Your task to perform on an android device: Clear the cart on newegg. Image 0: 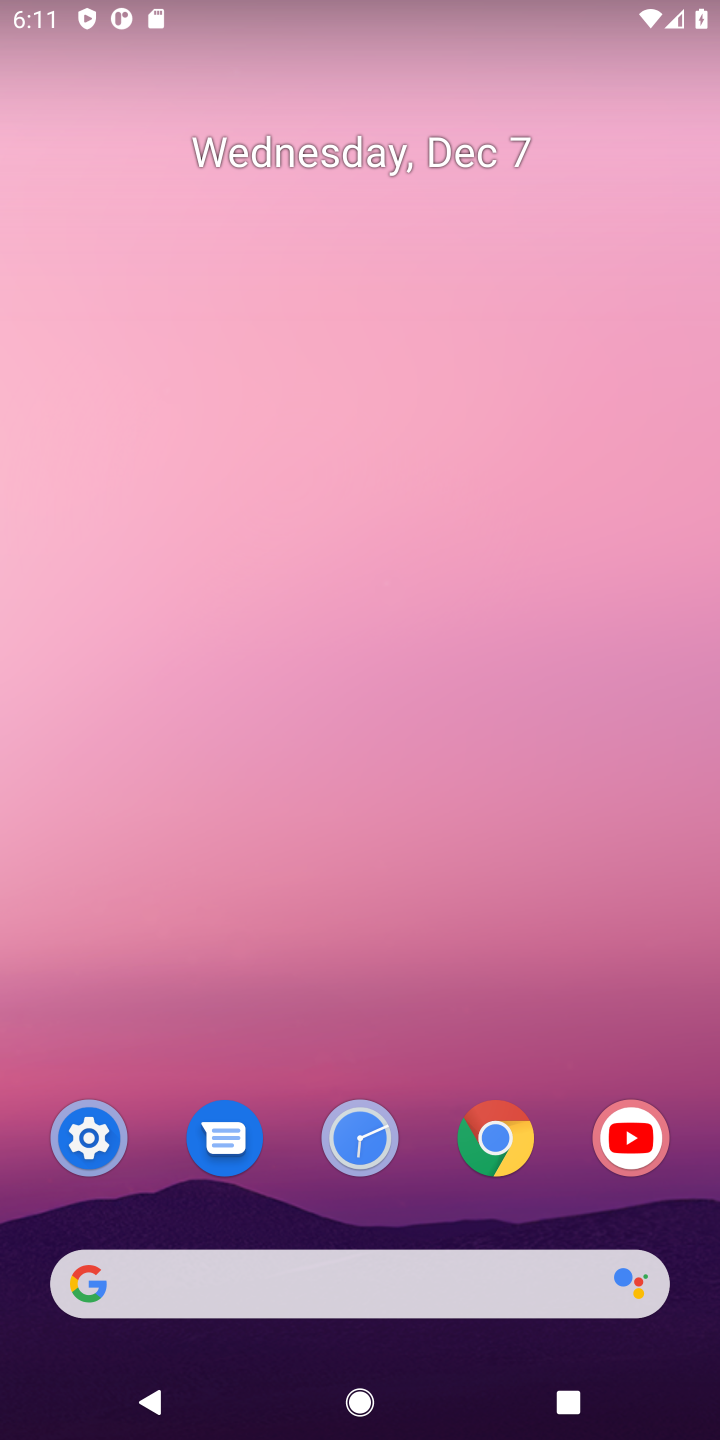
Step 0: press home button
Your task to perform on an android device: Clear the cart on newegg. Image 1: 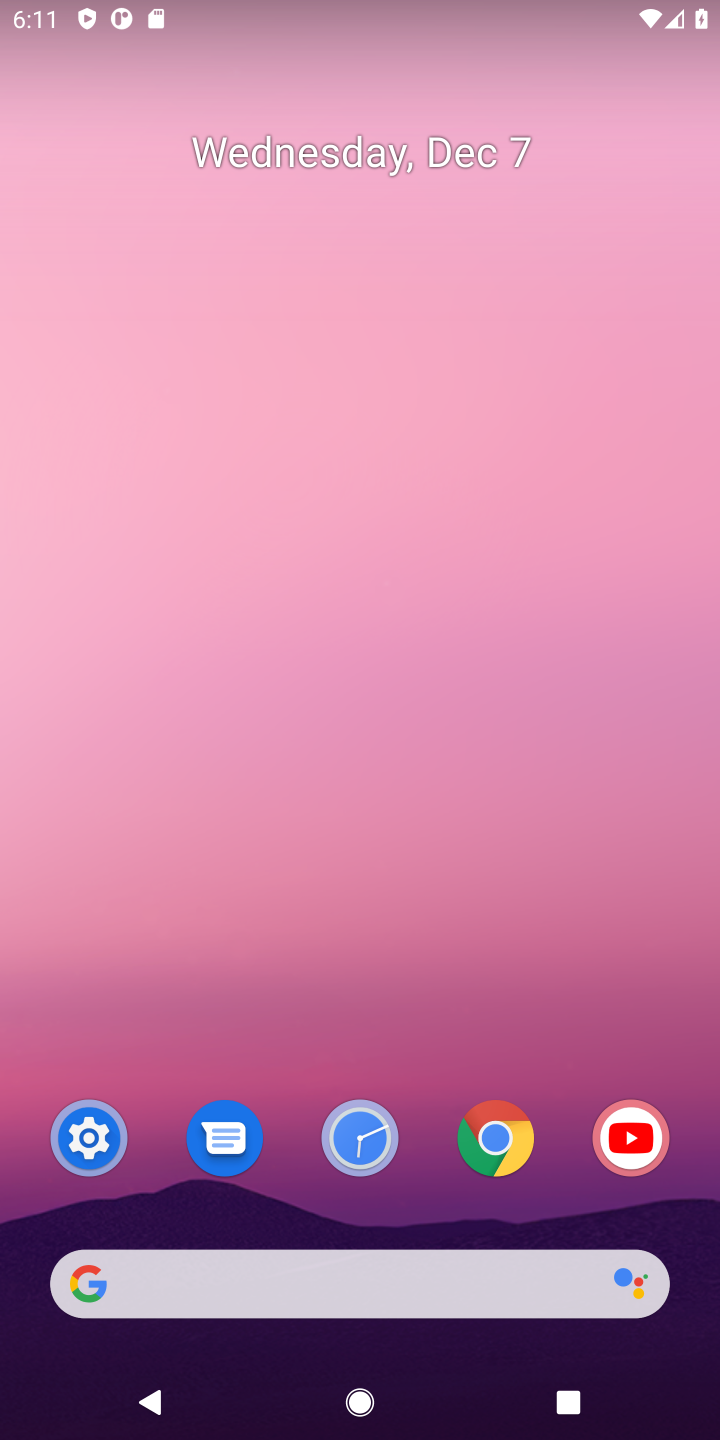
Step 1: click (210, 1280)
Your task to perform on an android device: Clear the cart on newegg. Image 2: 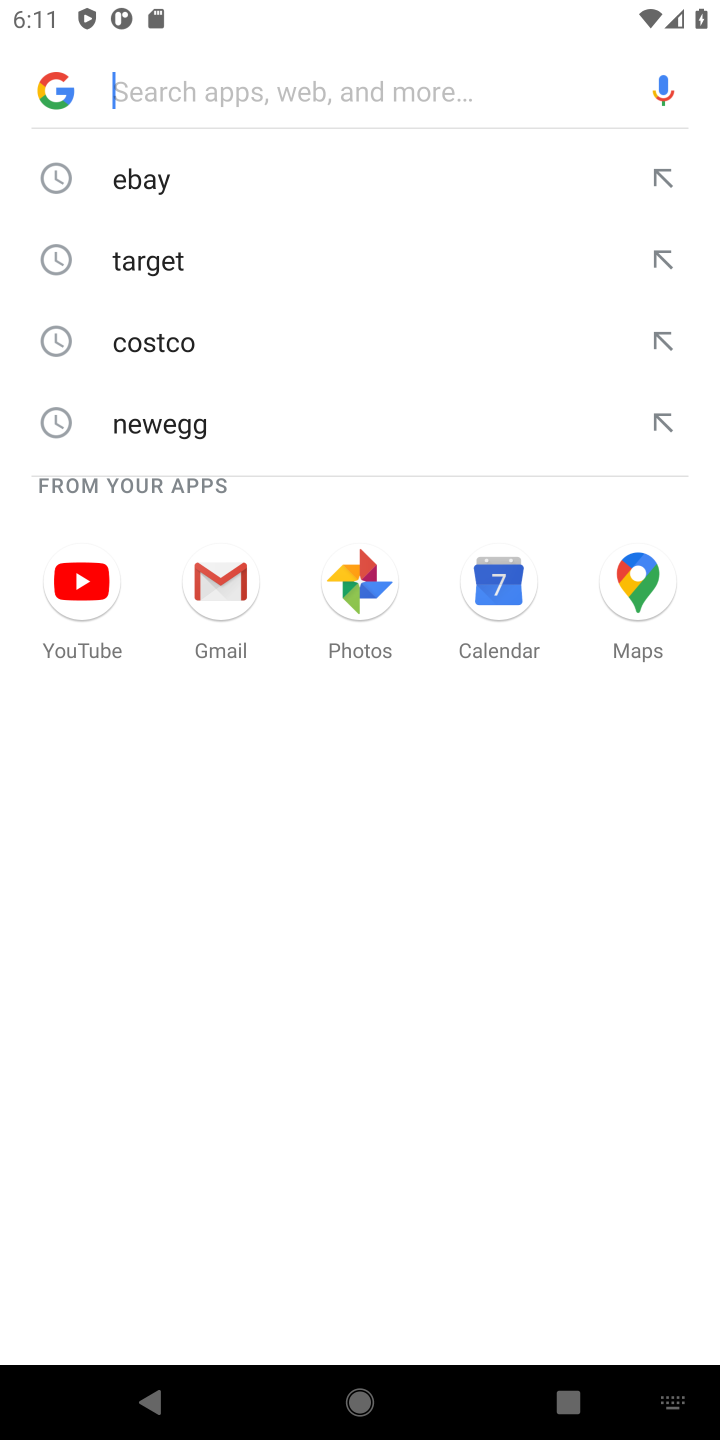
Step 2: type "newegg"
Your task to perform on an android device: Clear the cart on newegg. Image 3: 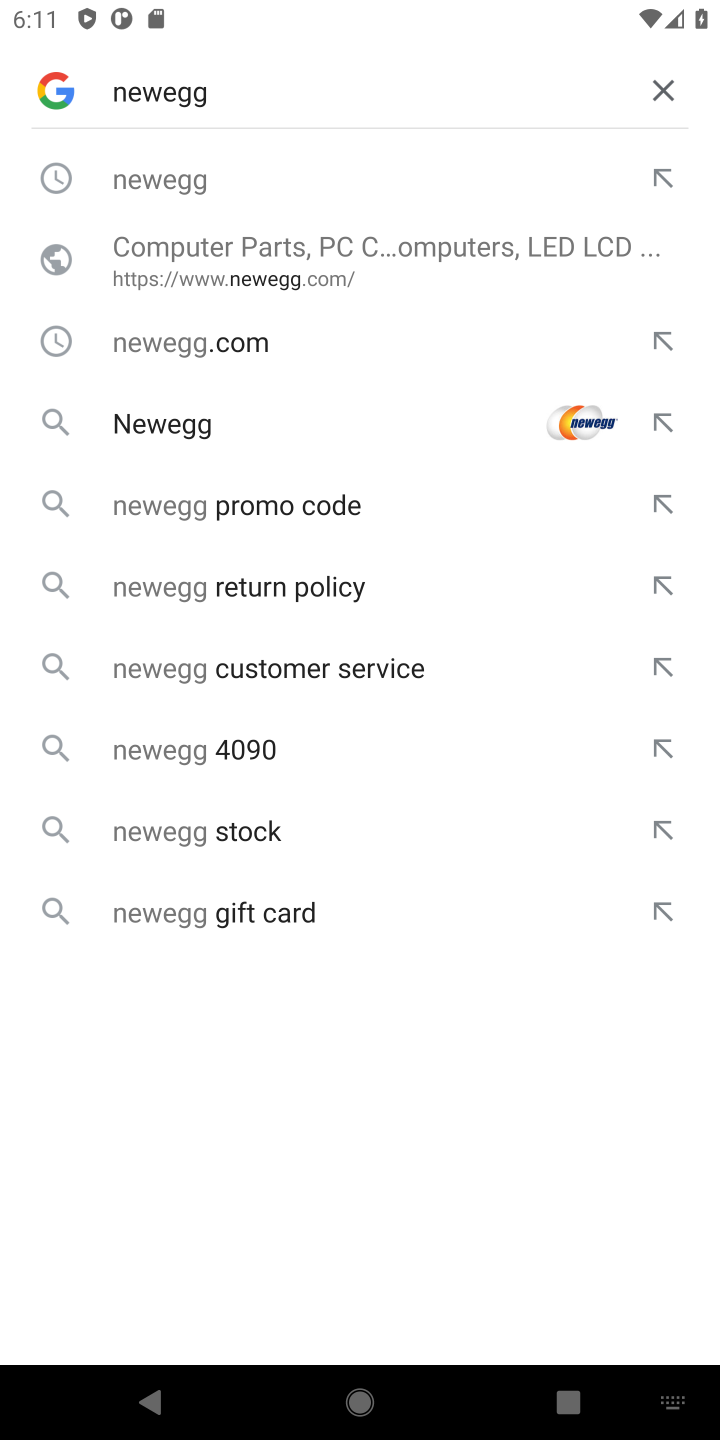
Step 3: press enter
Your task to perform on an android device: Clear the cart on newegg. Image 4: 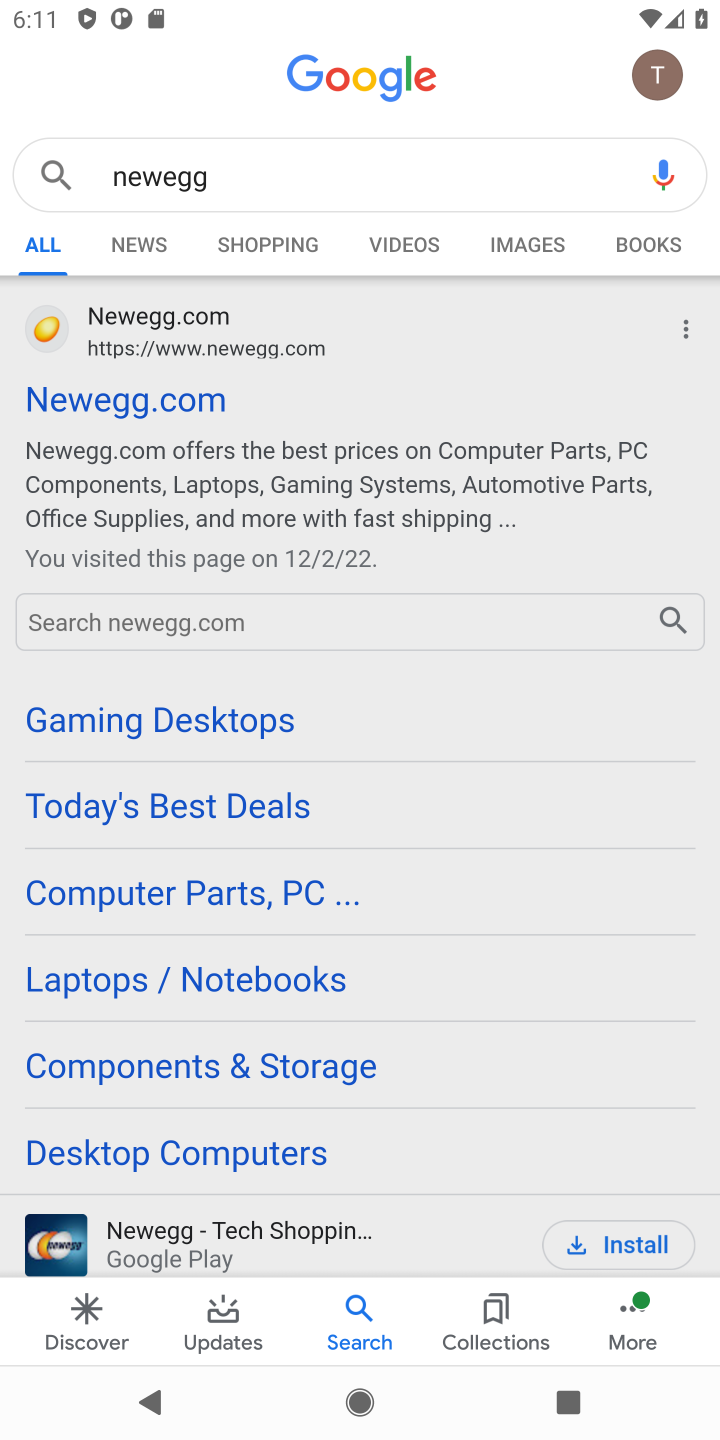
Step 4: click (116, 396)
Your task to perform on an android device: Clear the cart on newegg. Image 5: 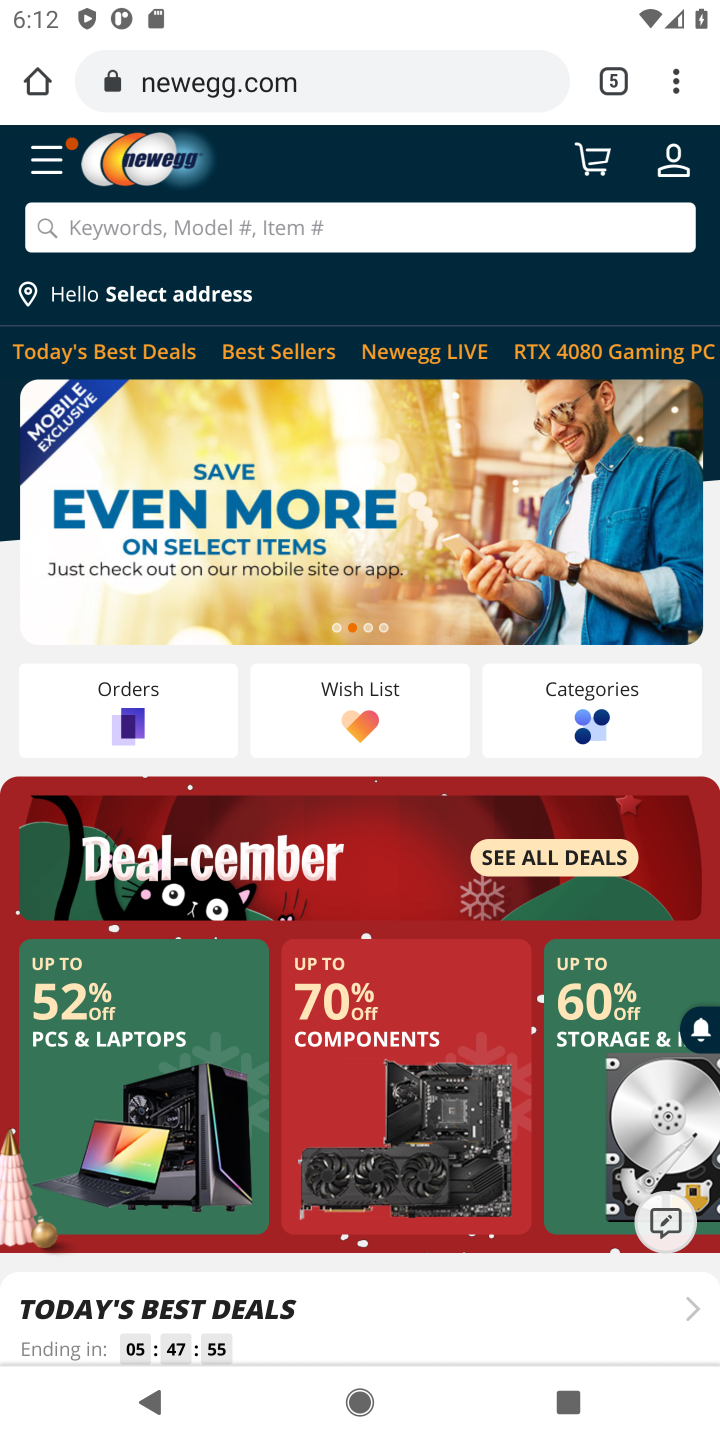
Step 5: click (587, 154)
Your task to perform on an android device: Clear the cart on newegg. Image 6: 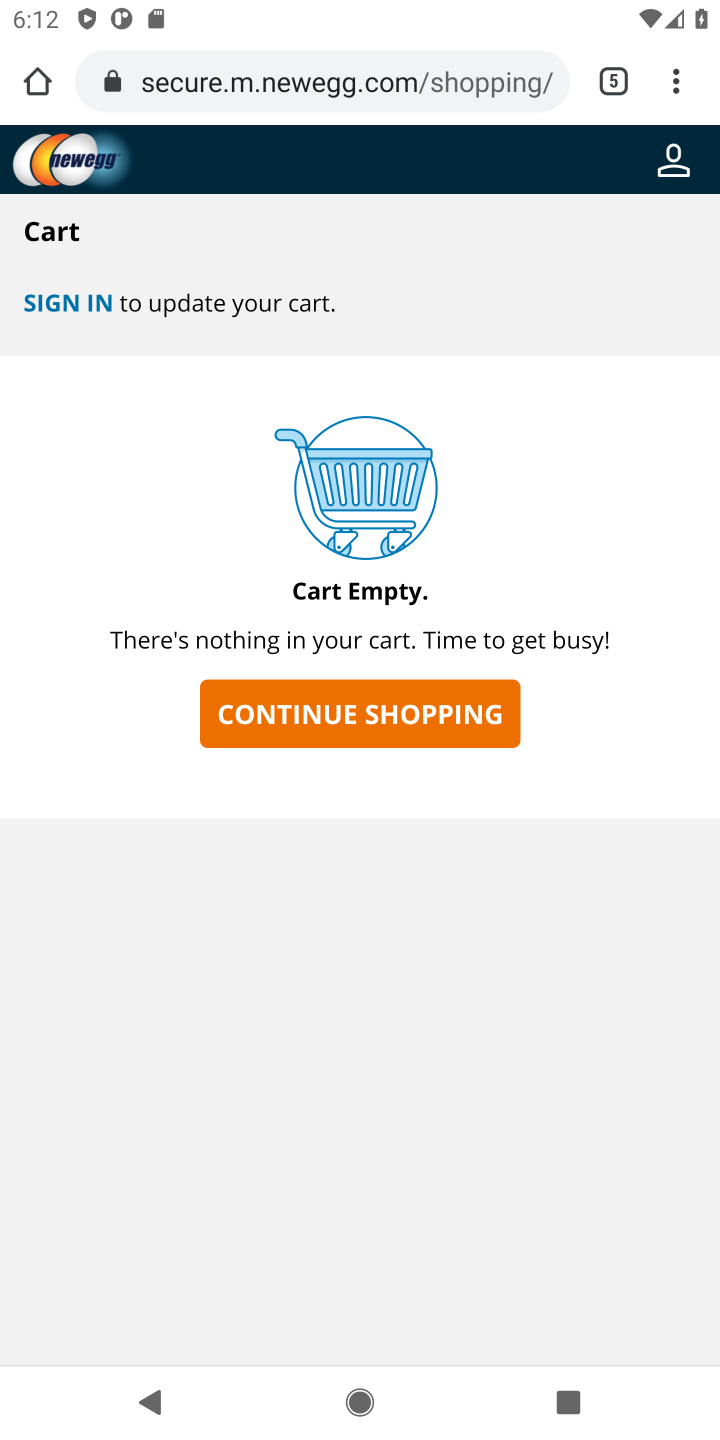
Step 6: task complete